Your task to perform on an android device: Go to internet settings Image 0: 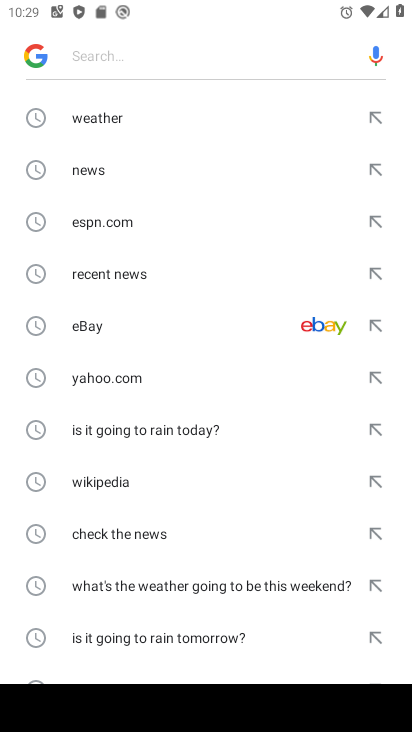
Step 0: press home button
Your task to perform on an android device: Go to internet settings Image 1: 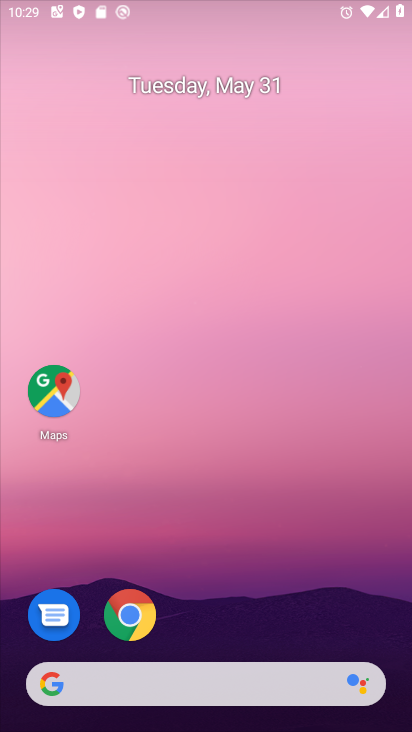
Step 1: drag from (334, 563) to (346, 7)
Your task to perform on an android device: Go to internet settings Image 2: 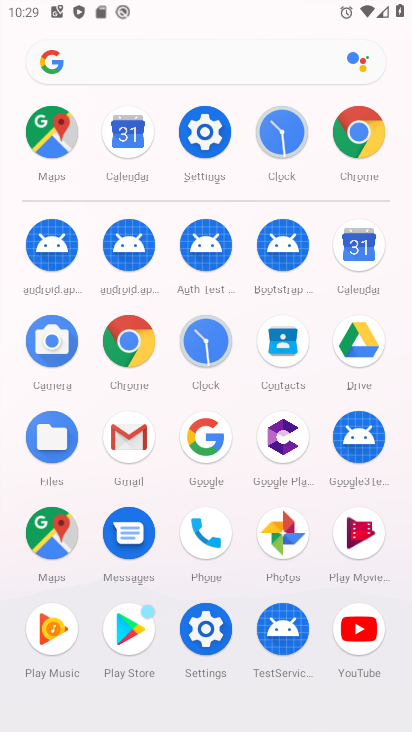
Step 2: click (210, 122)
Your task to perform on an android device: Go to internet settings Image 3: 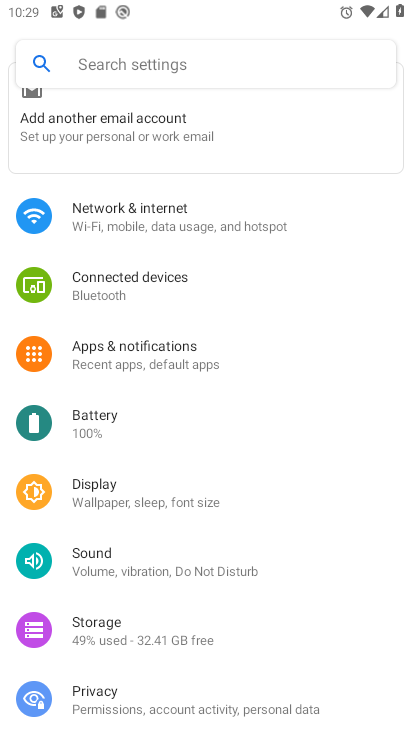
Step 3: click (180, 214)
Your task to perform on an android device: Go to internet settings Image 4: 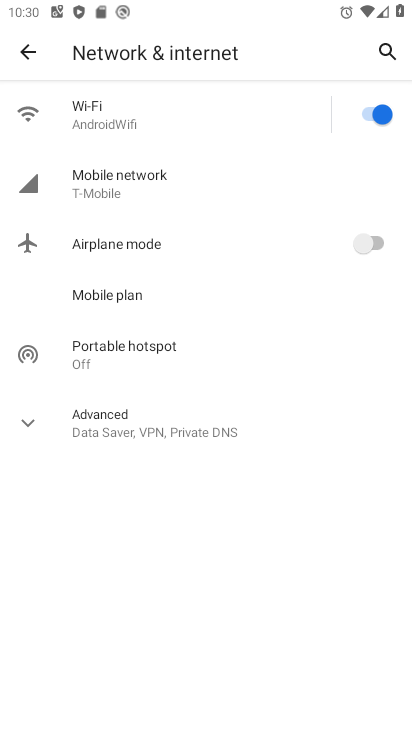
Step 4: task complete